Your task to perform on an android device: Open Chrome and go to the settings page Image 0: 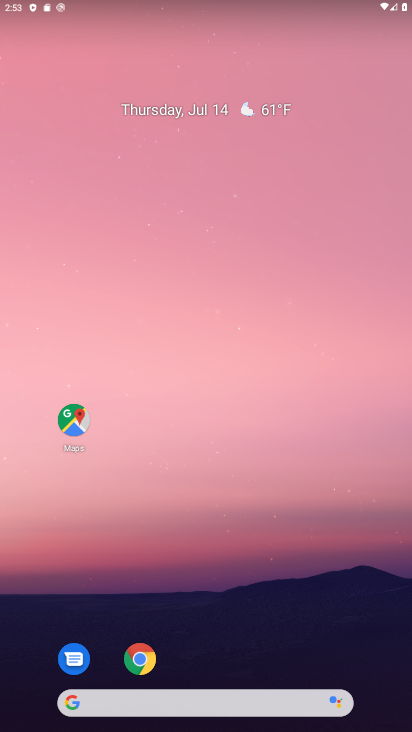
Step 0: click (141, 658)
Your task to perform on an android device: Open Chrome and go to the settings page Image 1: 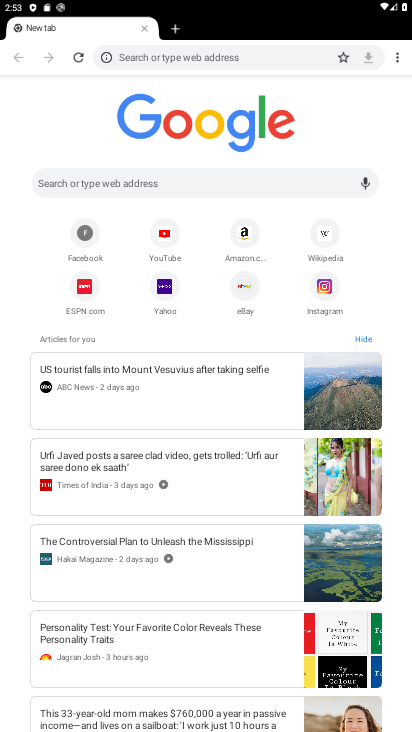
Step 1: click (398, 57)
Your task to perform on an android device: Open Chrome and go to the settings page Image 2: 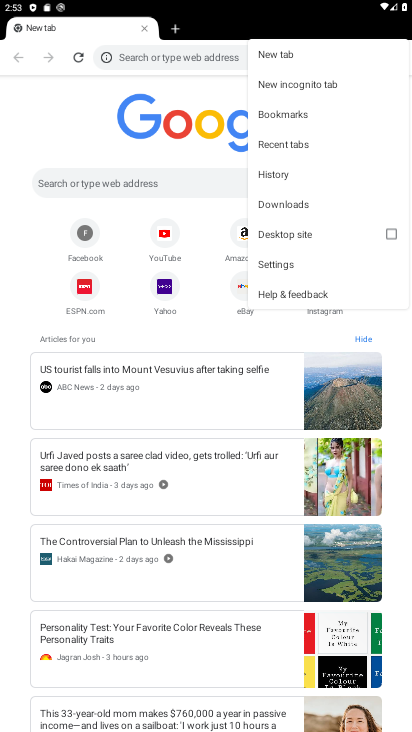
Step 2: click (279, 260)
Your task to perform on an android device: Open Chrome and go to the settings page Image 3: 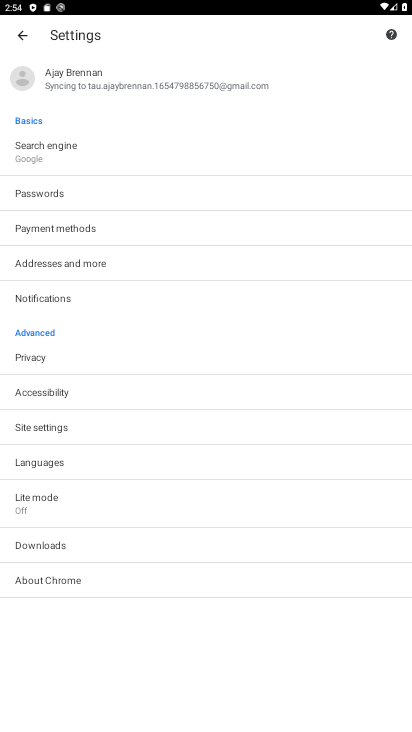
Step 3: task complete